Your task to perform on an android device: stop showing notifications on the lock screen Image 0: 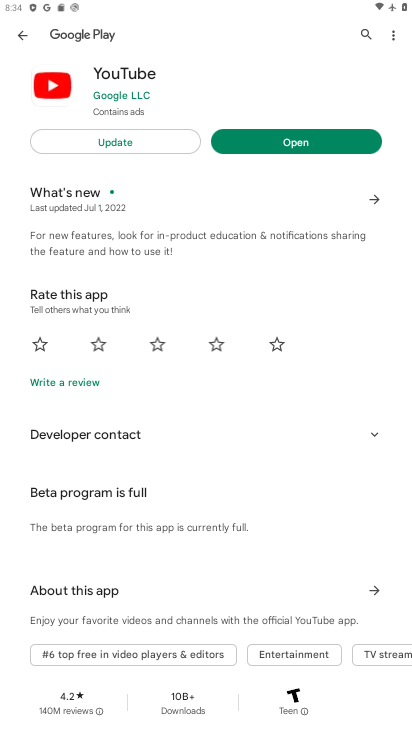
Step 0: press back button
Your task to perform on an android device: stop showing notifications on the lock screen Image 1: 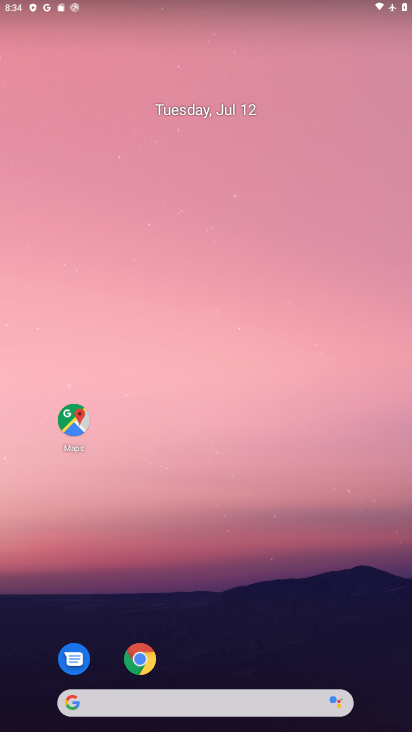
Step 1: drag from (241, 664) to (208, 172)
Your task to perform on an android device: stop showing notifications on the lock screen Image 2: 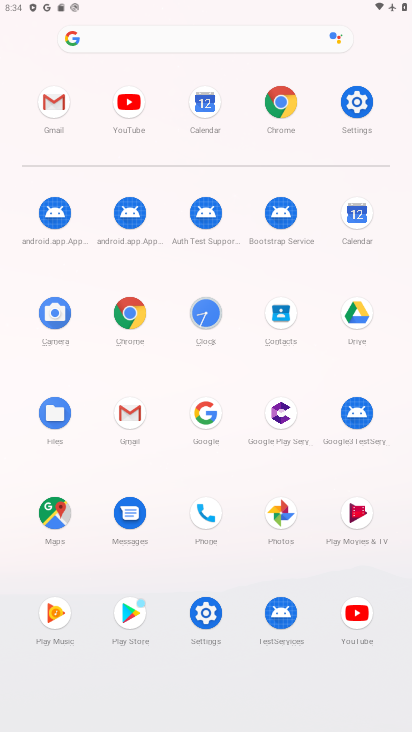
Step 2: click (198, 611)
Your task to perform on an android device: stop showing notifications on the lock screen Image 3: 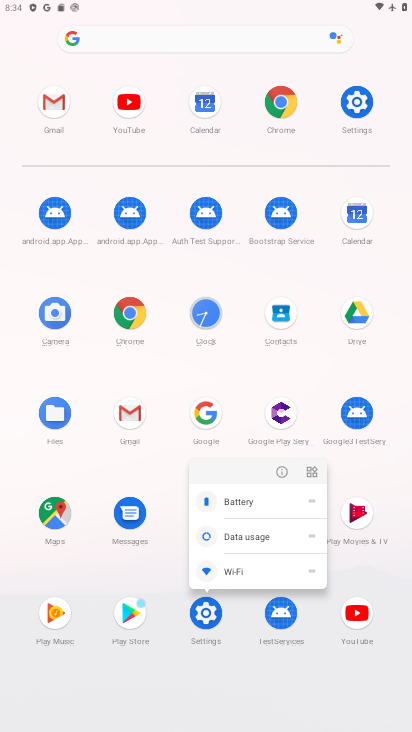
Step 3: click (198, 610)
Your task to perform on an android device: stop showing notifications on the lock screen Image 4: 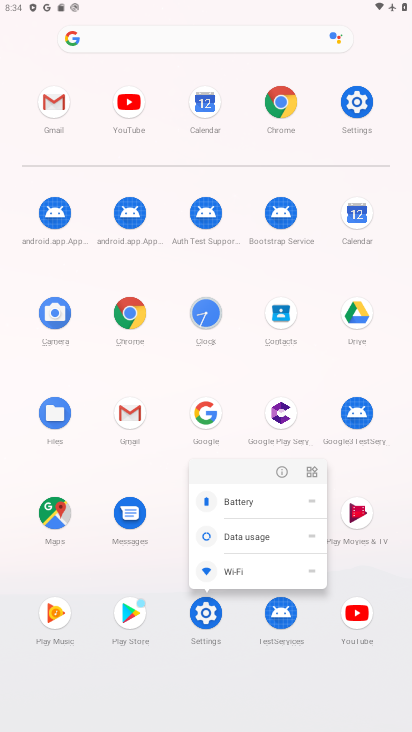
Step 4: click (199, 609)
Your task to perform on an android device: stop showing notifications on the lock screen Image 5: 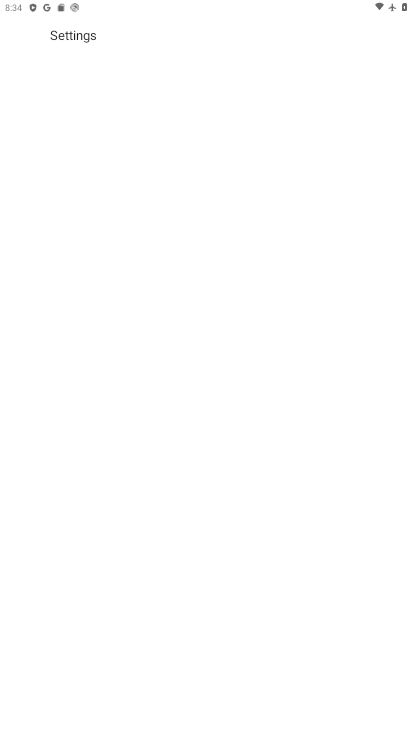
Step 5: click (200, 609)
Your task to perform on an android device: stop showing notifications on the lock screen Image 6: 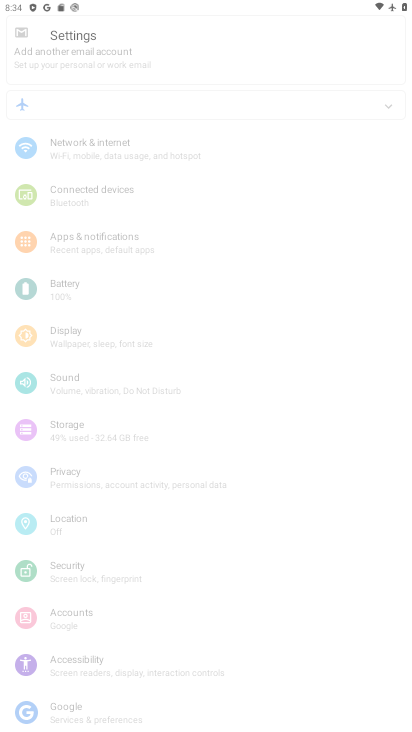
Step 6: click (200, 609)
Your task to perform on an android device: stop showing notifications on the lock screen Image 7: 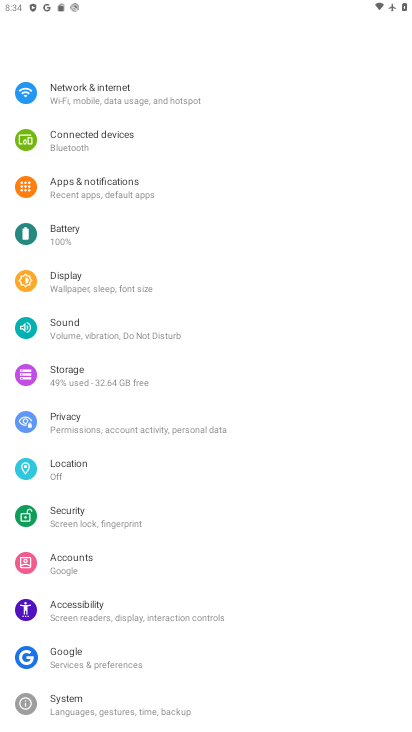
Step 7: click (200, 609)
Your task to perform on an android device: stop showing notifications on the lock screen Image 8: 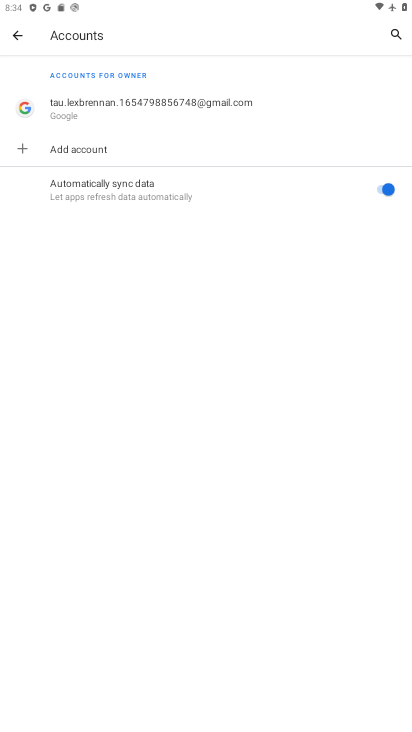
Step 8: click (11, 26)
Your task to perform on an android device: stop showing notifications on the lock screen Image 9: 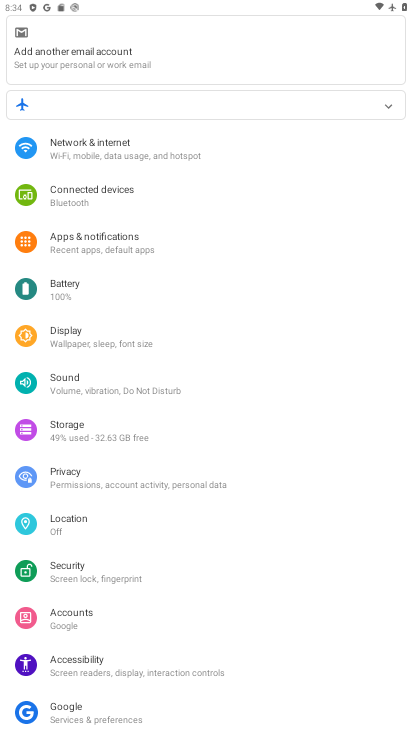
Step 9: click (108, 242)
Your task to perform on an android device: stop showing notifications on the lock screen Image 10: 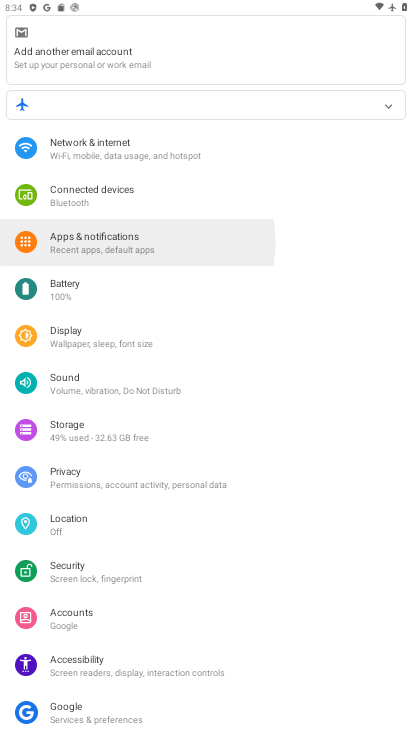
Step 10: click (108, 242)
Your task to perform on an android device: stop showing notifications on the lock screen Image 11: 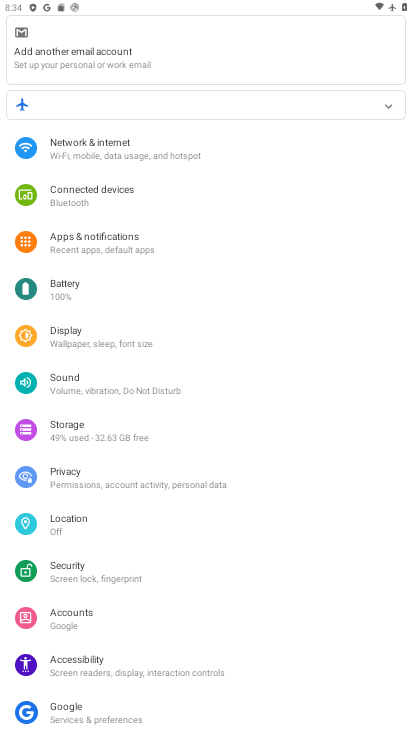
Step 11: click (108, 242)
Your task to perform on an android device: stop showing notifications on the lock screen Image 12: 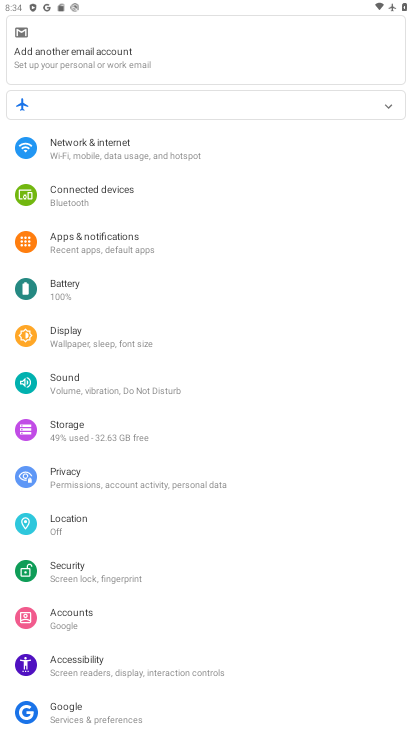
Step 12: click (108, 242)
Your task to perform on an android device: stop showing notifications on the lock screen Image 13: 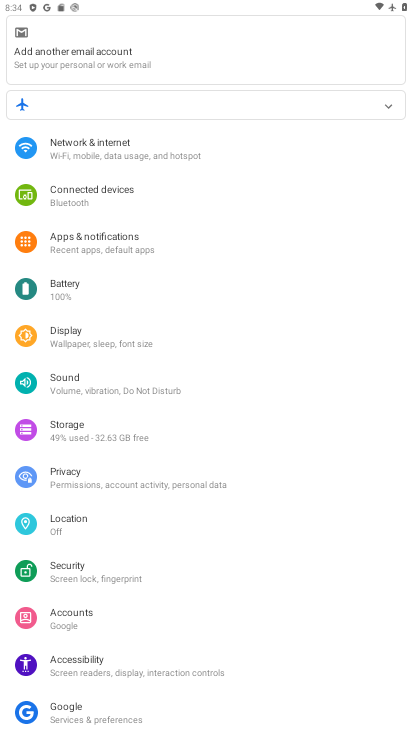
Step 13: click (101, 233)
Your task to perform on an android device: stop showing notifications on the lock screen Image 14: 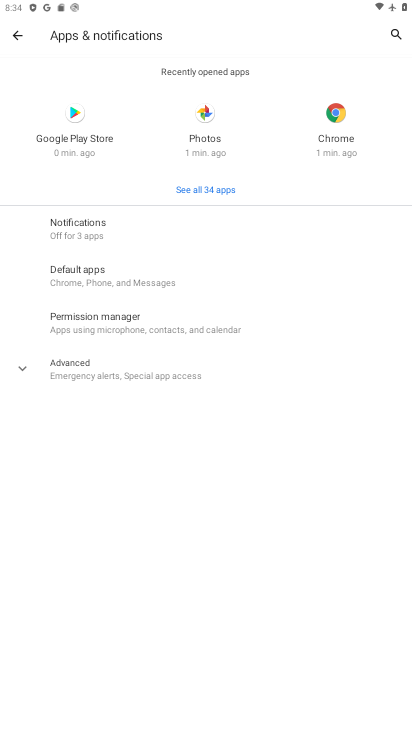
Step 14: click (79, 233)
Your task to perform on an android device: stop showing notifications on the lock screen Image 15: 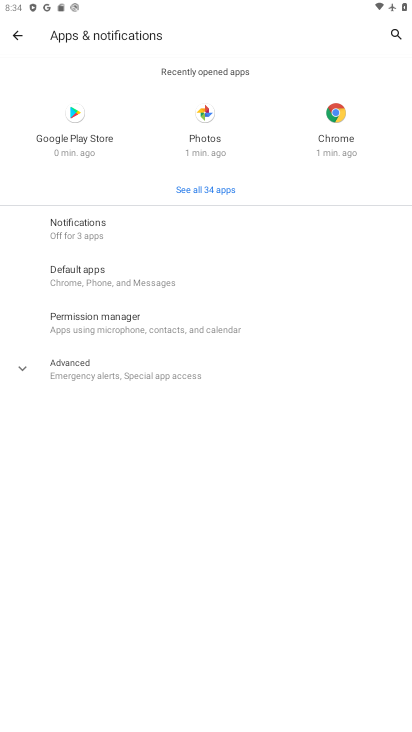
Step 15: click (79, 233)
Your task to perform on an android device: stop showing notifications on the lock screen Image 16: 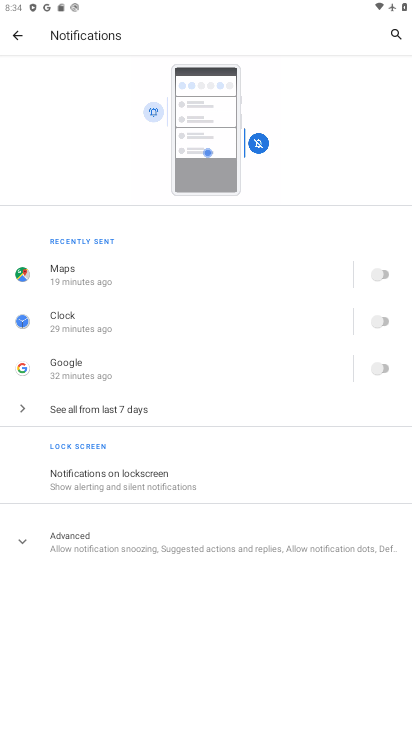
Step 16: click (88, 475)
Your task to perform on an android device: stop showing notifications on the lock screen Image 17: 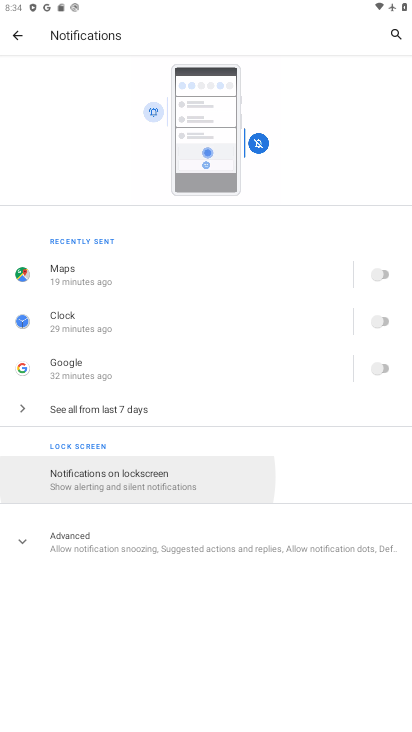
Step 17: click (88, 475)
Your task to perform on an android device: stop showing notifications on the lock screen Image 18: 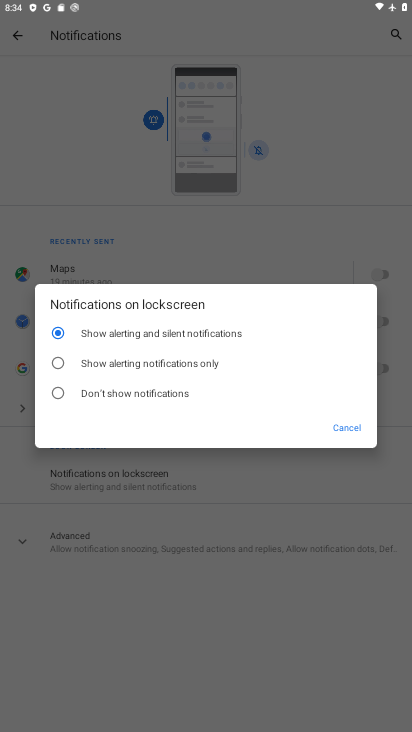
Step 18: click (338, 421)
Your task to perform on an android device: stop showing notifications on the lock screen Image 19: 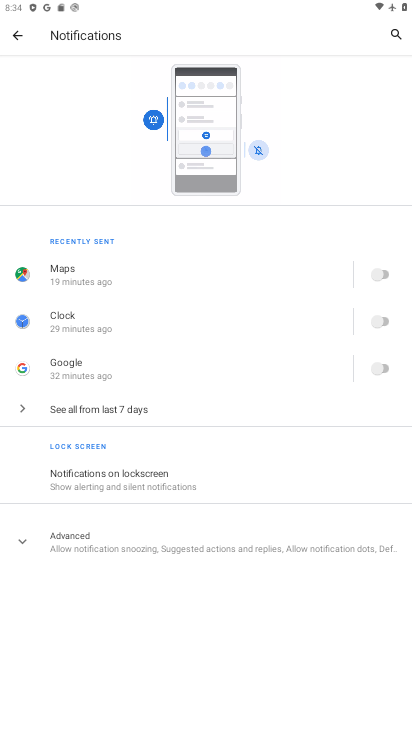
Step 19: task complete